Your task to perform on an android device: search for starred emails in the gmail app Image 0: 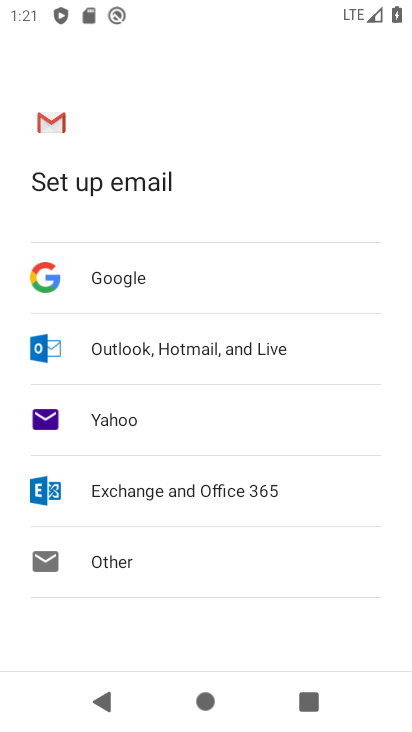
Step 0: press home button
Your task to perform on an android device: search for starred emails in the gmail app Image 1: 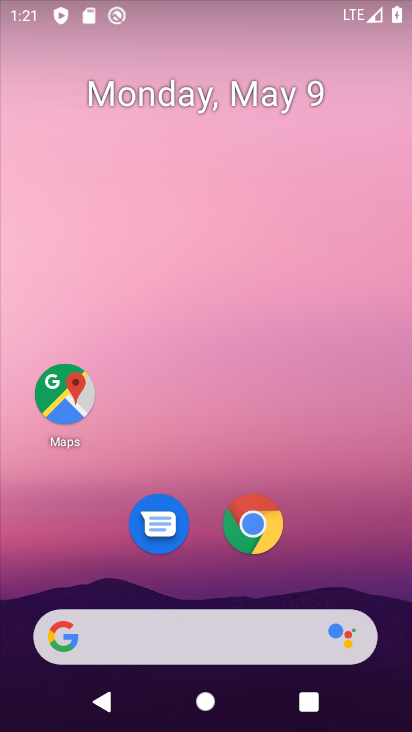
Step 1: drag from (188, 463) to (138, 82)
Your task to perform on an android device: search for starred emails in the gmail app Image 2: 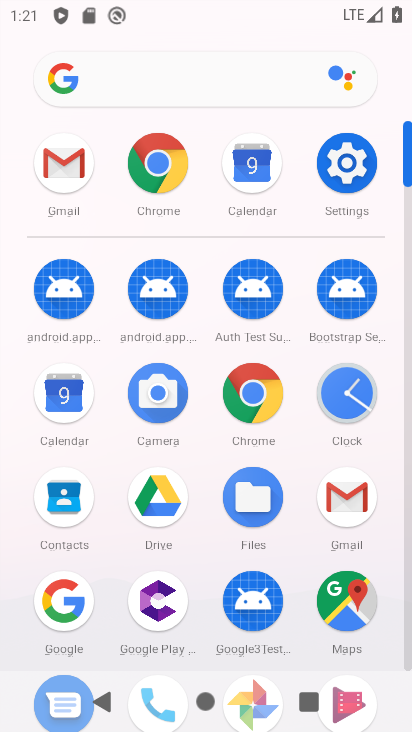
Step 2: click (71, 167)
Your task to perform on an android device: search for starred emails in the gmail app Image 3: 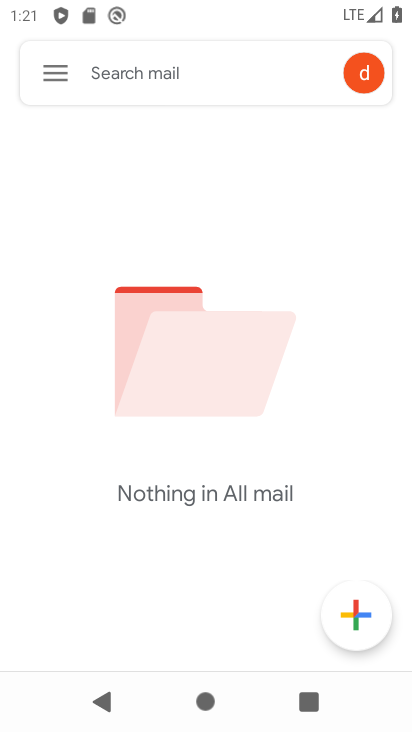
Step 3: click (57, 61)
Your task to perform on an android device: search for starred emails in the gmail app Image 4: 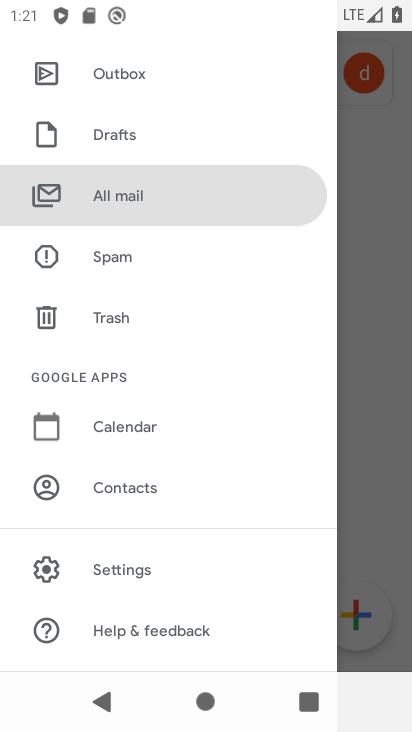
Step 4: drag from (226, 307) to (245, 681)
Your task to perform on an android device: search for starred emails in the gmail app Image 5: 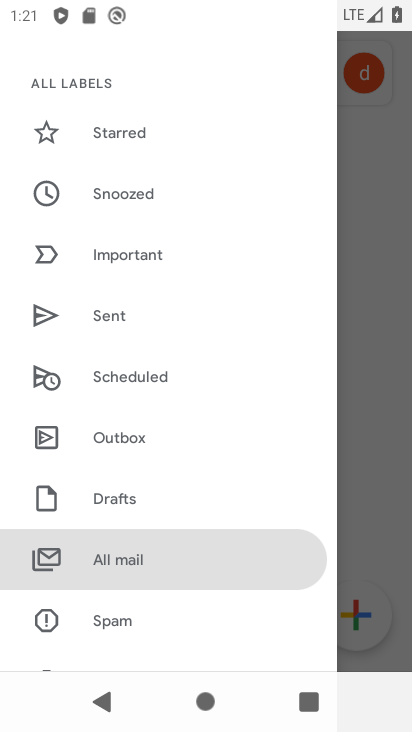
Step 5: click (145, 118)
Your task to perform on an android device: search for starred emails in the gmail app Image 6: 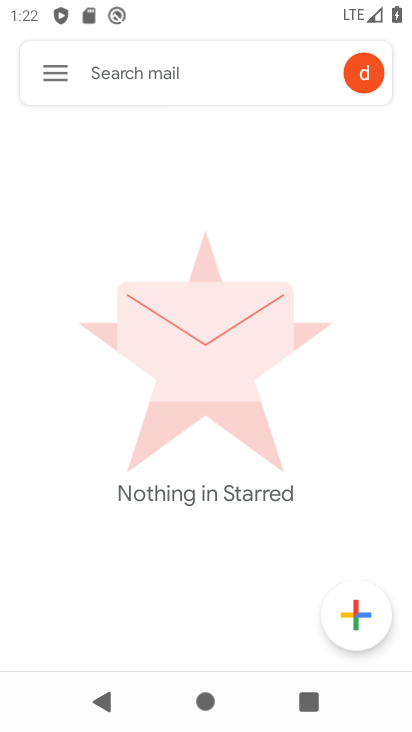
Step 6: task complete